Your task to perform on an android device: What's the weather going to be this weekend? Image 0: 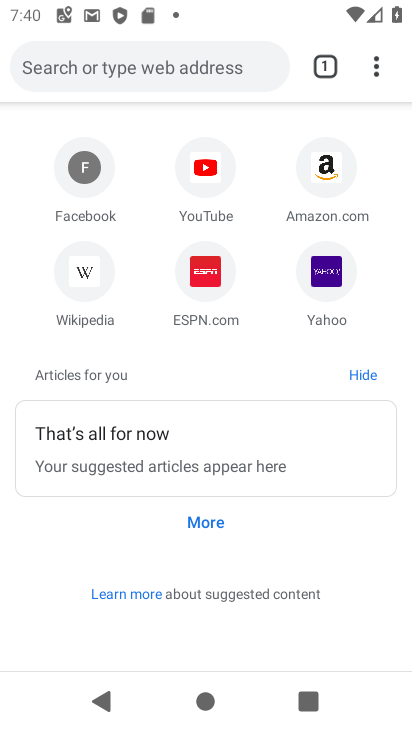
Step 0: press home button
Your task to perform on an android device: What's the weather going to be this weekend? Image 1: 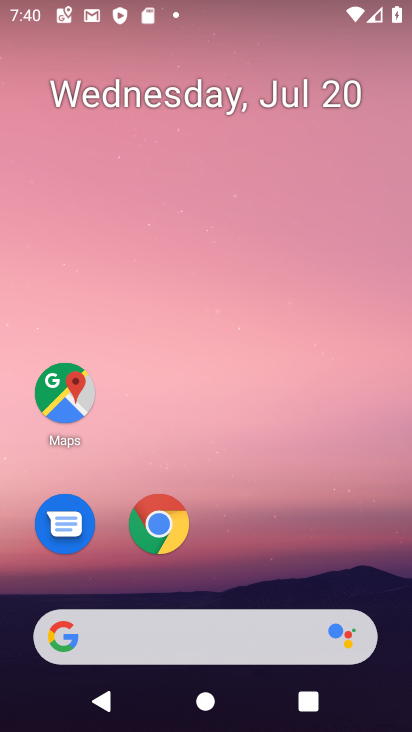
Step 1: drag from (177, 638) to (303, 142)
Your task to perform on an android device: What's the weather going to be this weekend? Image 2: 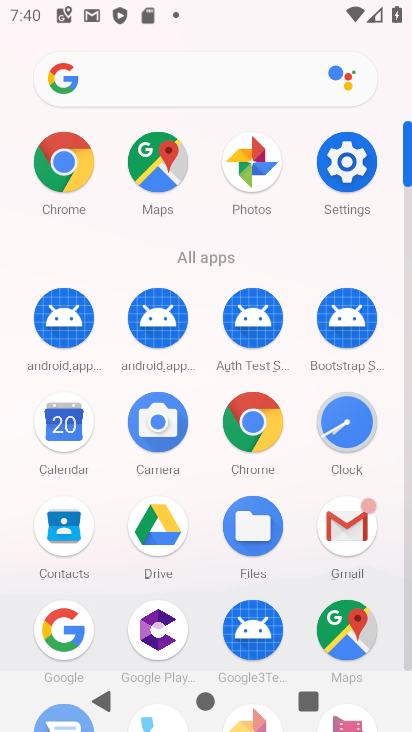
Step 2: click (60, 631)
Your task to perform on an android device: What's the weather going to be this weekend? Image 3: 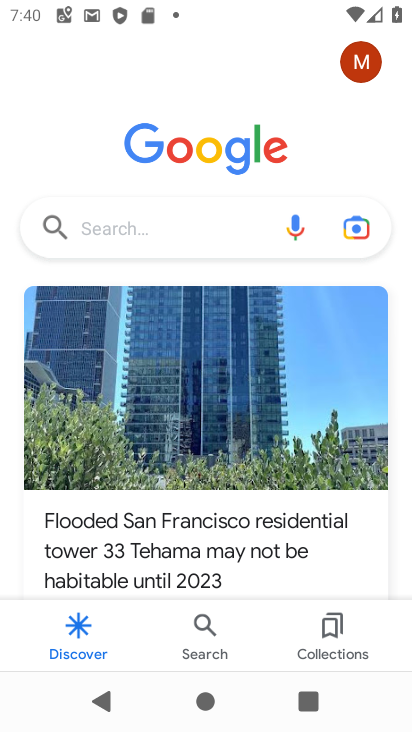
Step 3: click (203, 620)
Your task to perform on an android device: What's the weather going to be this weekend? Image 4: 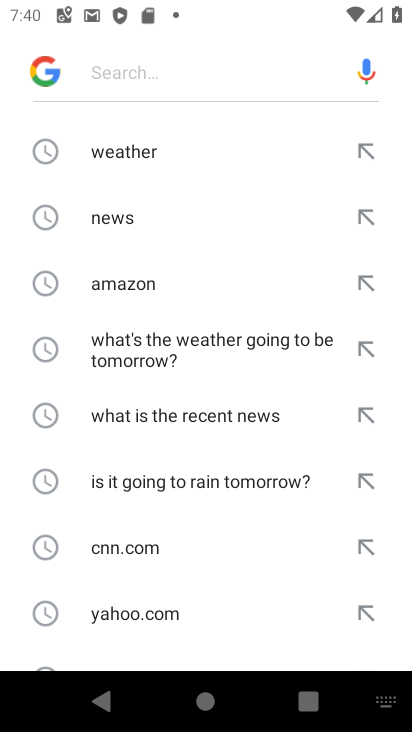
Step 4: click (123, 147)
Your task to perform on an android device: What's the weather going to be this weekend? Image 5: 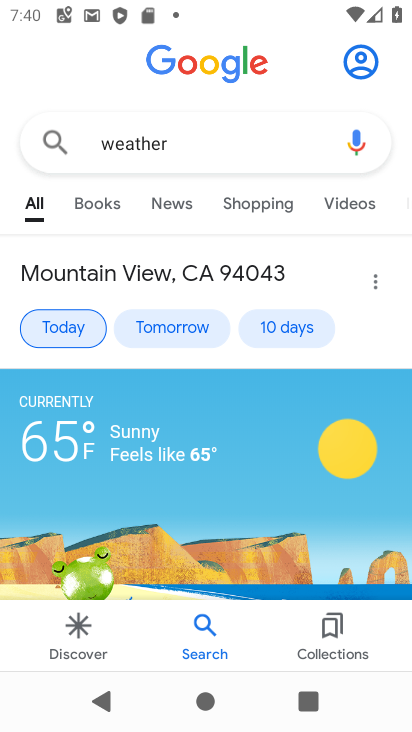
Step 5: click (290, 328)
Your task to perform on an android device: What's the weather going to be this weekend? Image 6: 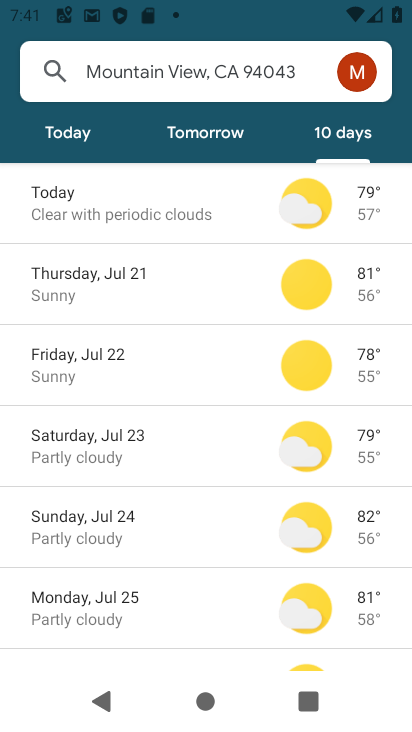
Step 6: click (108, 438)
Your task to perform on an android device: What's the weather going to be this weekend? Image 7: 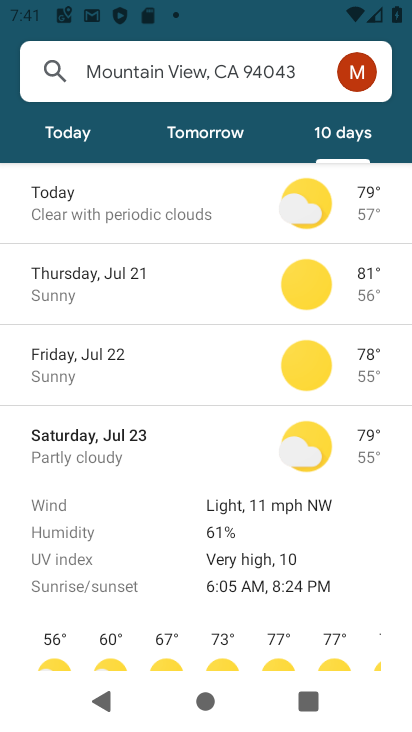
Step 7: task complete